Your task to perform on an android device: star an email in the gmail app Image 0: 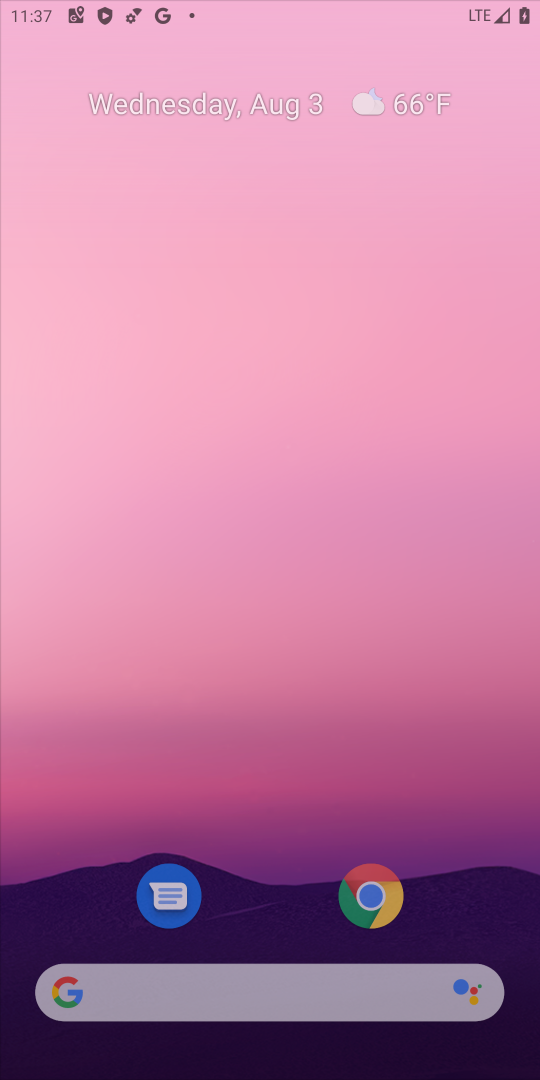
Step 0: press home button
Your task to perform on an android device: star an email in the gmail app Image 1: 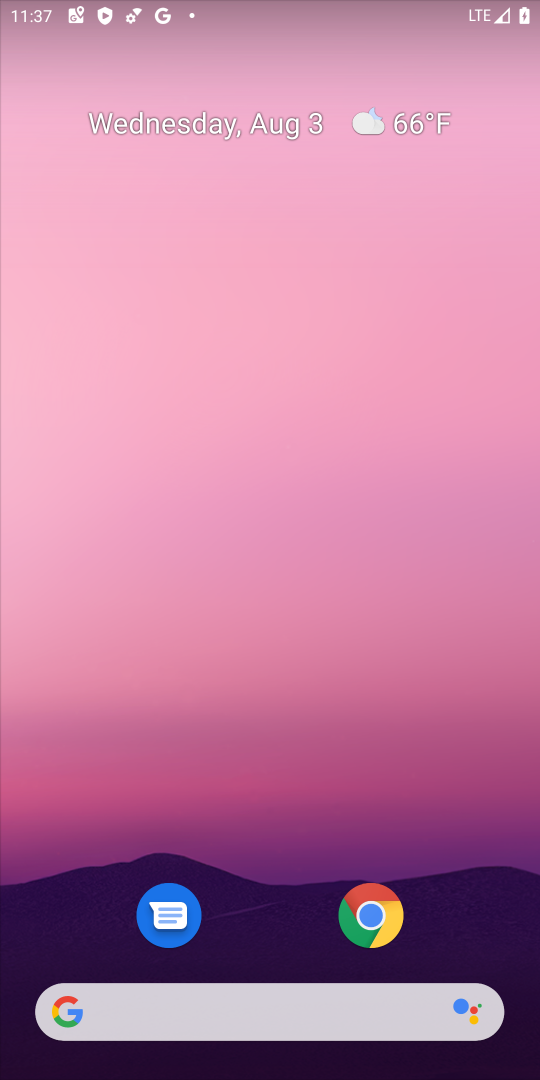
Step 1: drag from (248, 817) to (496, 334)
Your task to perform on an android device: star an email in the gmail app Image 2: 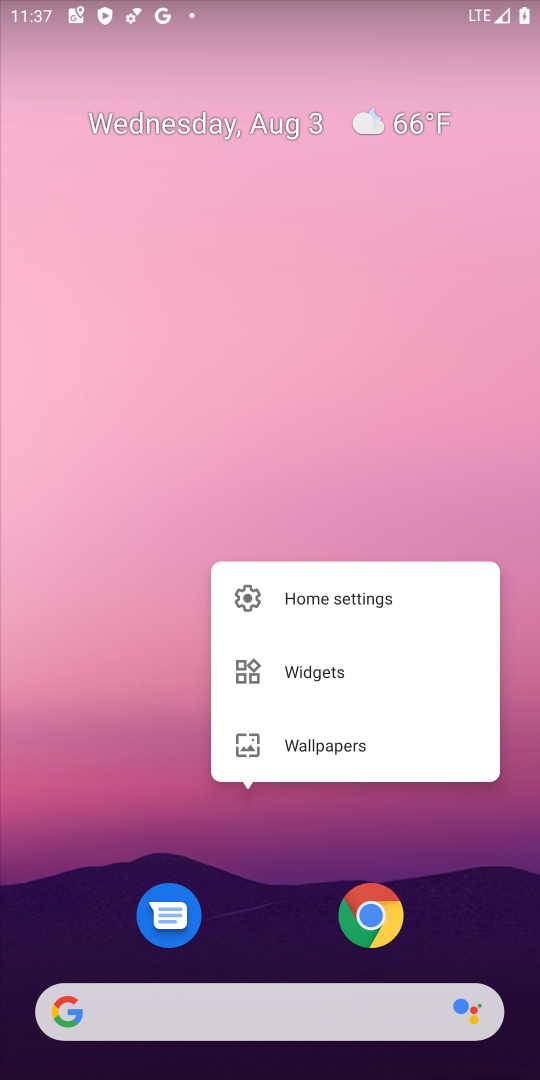
Step 2: click (390, 307)
Your task to perform on an android device: star an email in the gmail app Image 3: 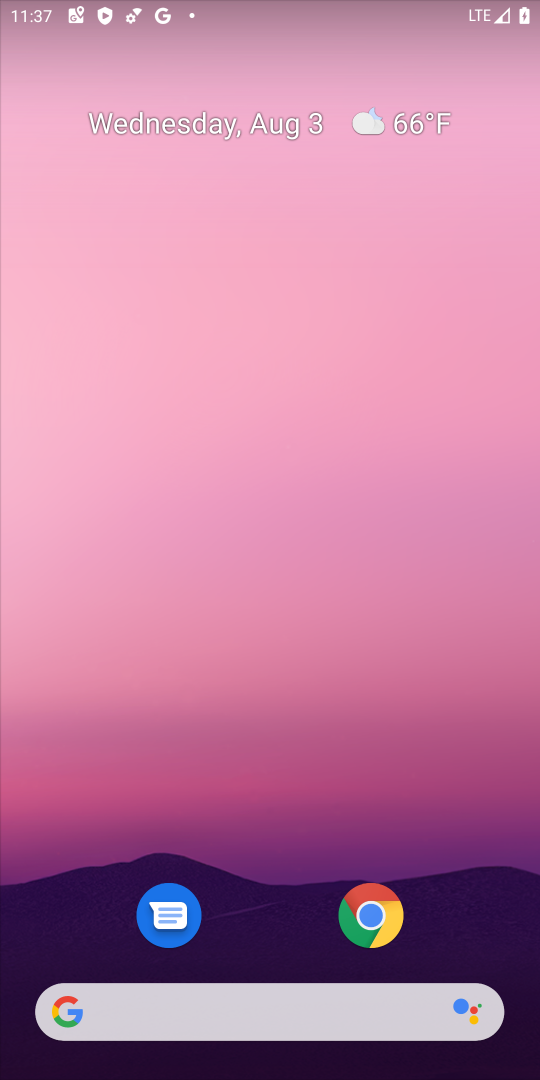
Step 3: drag from (156, 524) to (259, 2)
Your task to perform on an android device: star an email in the gmail app Image 4: 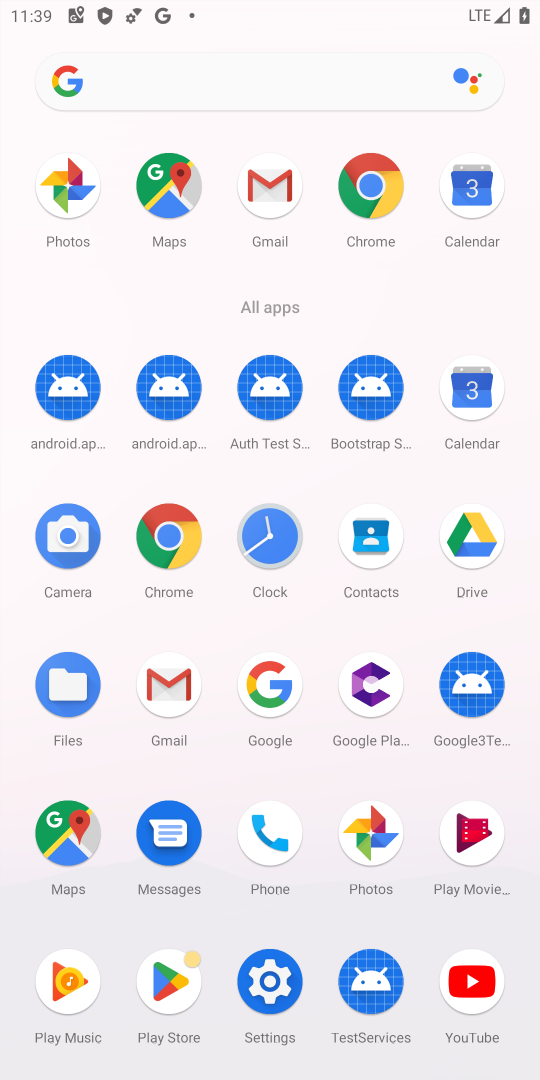
Step 4: click (276, 175)
Your task to perform on an android device: star an email in the gmail app Image 5: 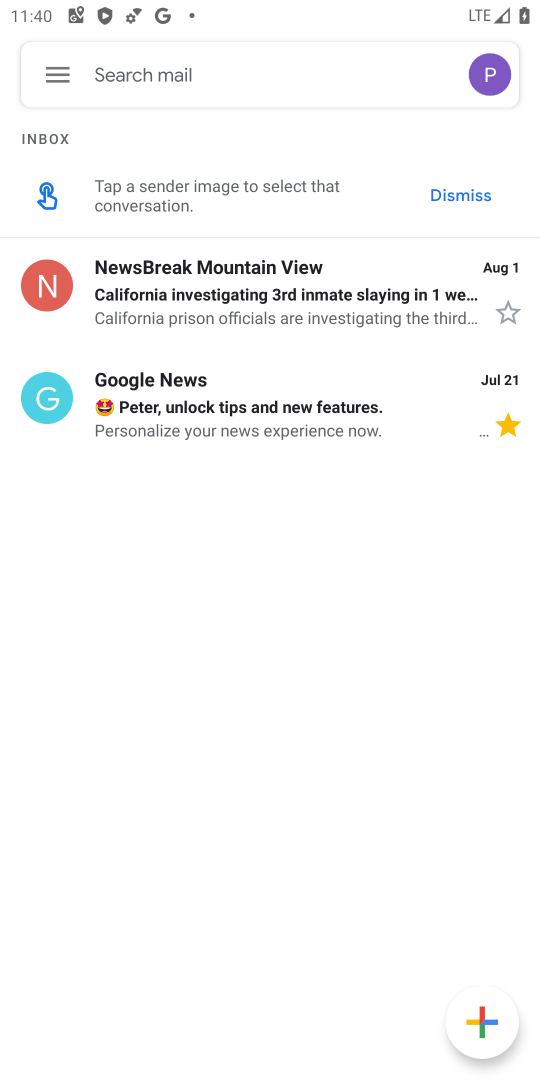
Step 5: click (509, 319)
Your task to perform on an android device: star an email in the gmail app Image 6: 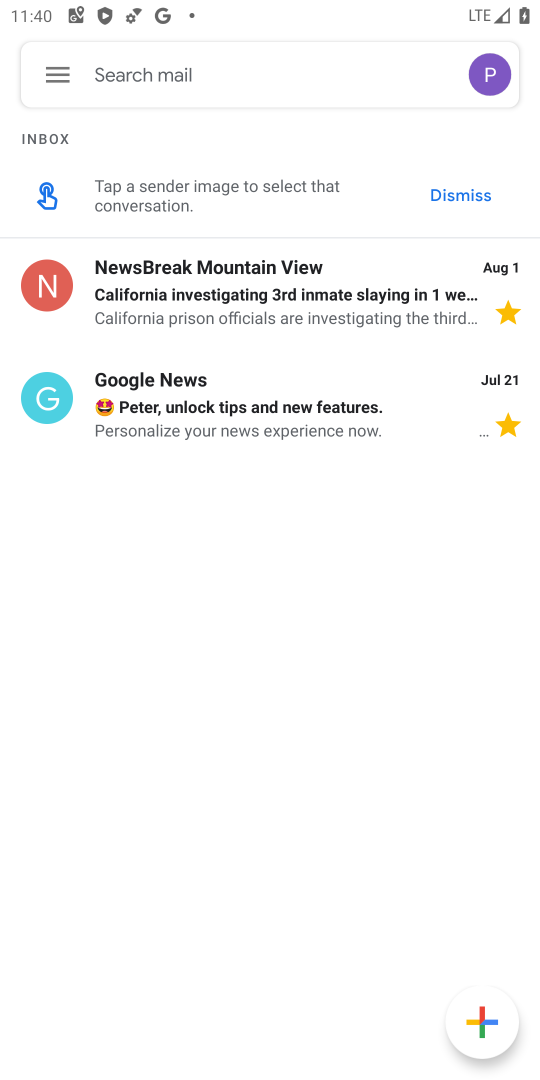
Step 6: task complete